Your task to perform on an android device: refresh tabs in the chrome app Image 0: 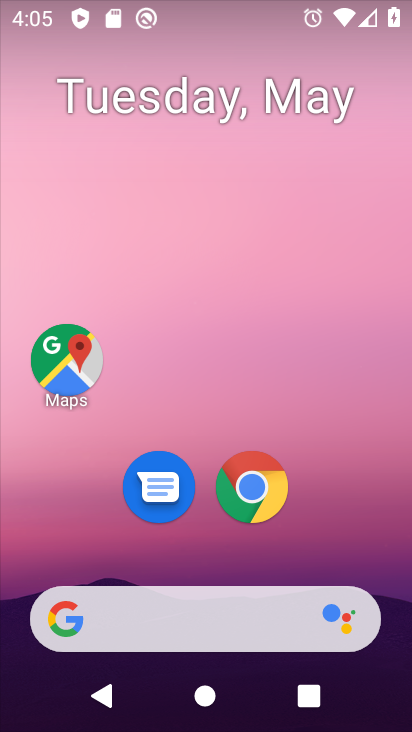
Step 0: click (252, 483)
Your task to perform on an android device: refresh tabs in the chrome app Image 1: 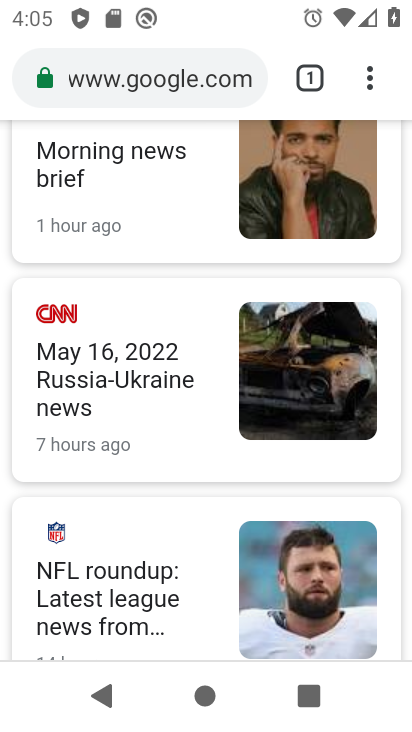
Step 1: click (368, 72)
Your task to perform on an android device: refresh tabs in the chrome app Image 2: 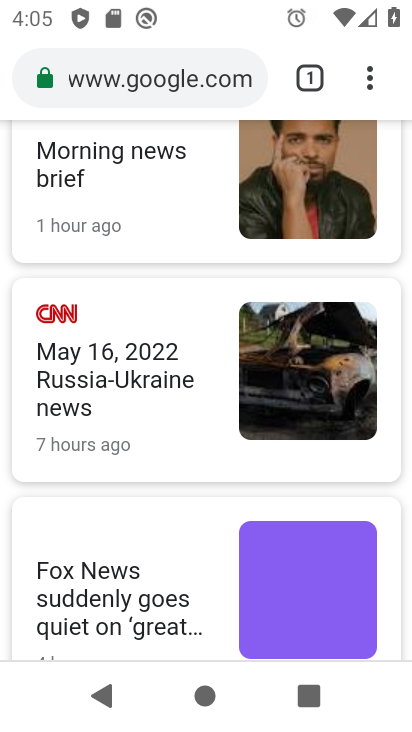
Step 2: task complete